Your task to perform on an android device: Play the last video I watched on Youtube Image 0: 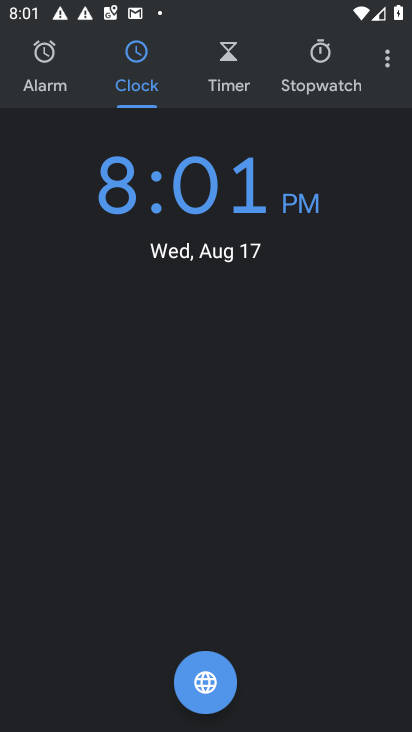
Step 0: press home button
Your task to perform on an android device: Play the last video I watched on Youtube Image 1: 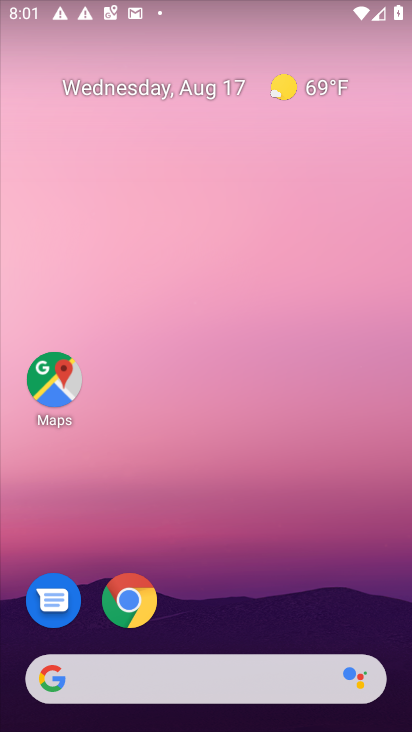
Step 1: drag from (261, 582) to (308, 145)
Your task to perform on an android device: Play the last video I watched on Youtube Image 2: 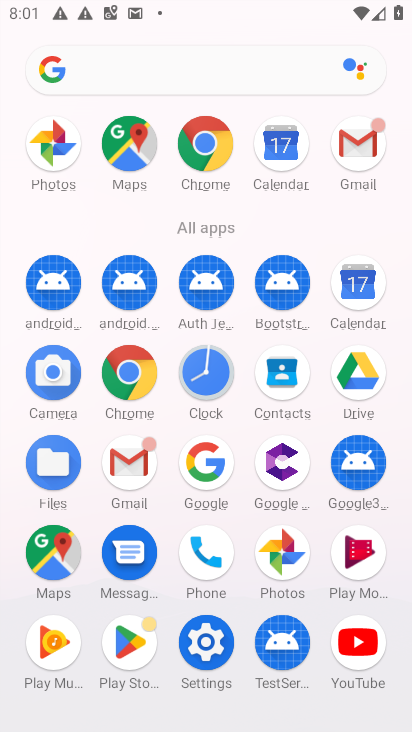
Step 2: click (368, 645)
Your task to perform on an android device: Play the last video I watched on Youtube Image 3: 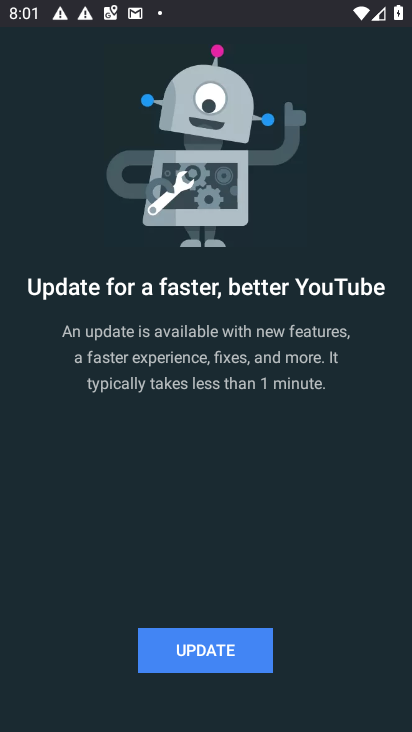
Step 3: click (220, 648)
Your task to perform on an android device: Play the last video I watched on Youtube Image 4: 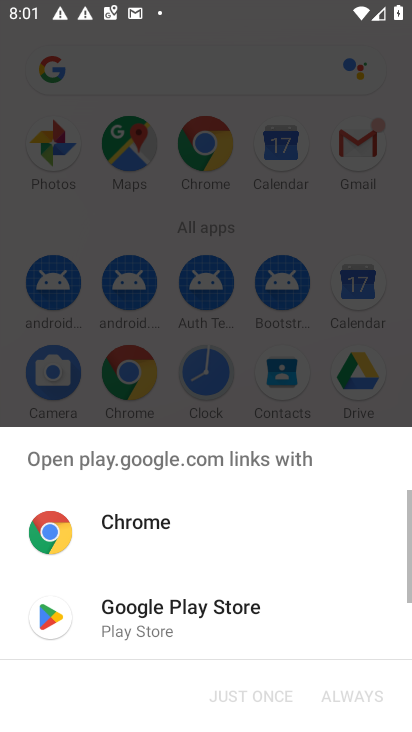
Step 4: click (210, 624)
Your task to perform on an android device: Play the last video I watched on Youtube Image 5: 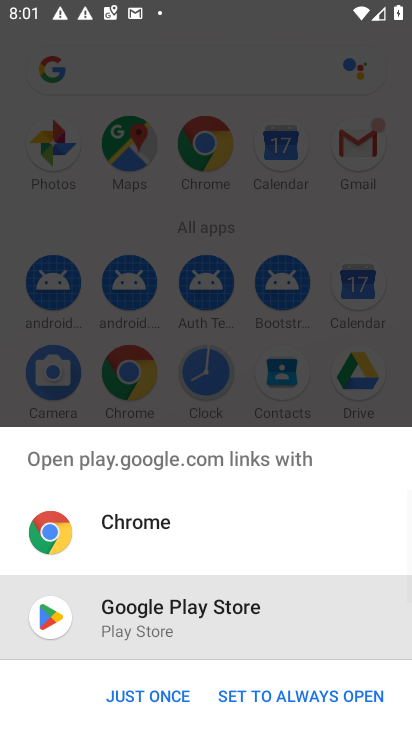
Step 5: click (169, 688)
Your task to perform on an android device: Play the last video I watched on Youtube Image 6: 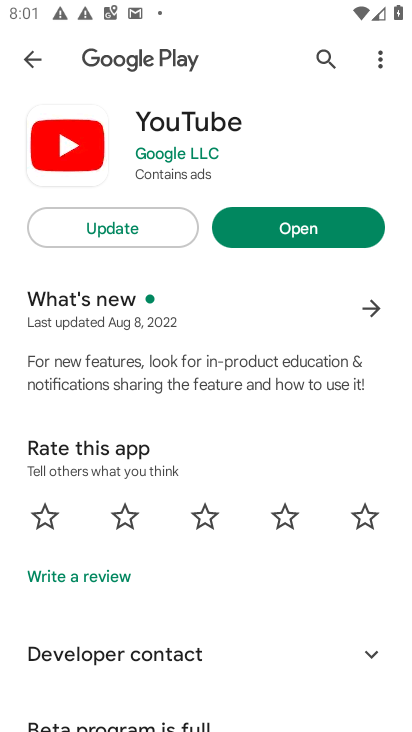
Step 6: click (136, 231)
Your task to perform on an android device: Play the last video I watched on Youtube Image 7: 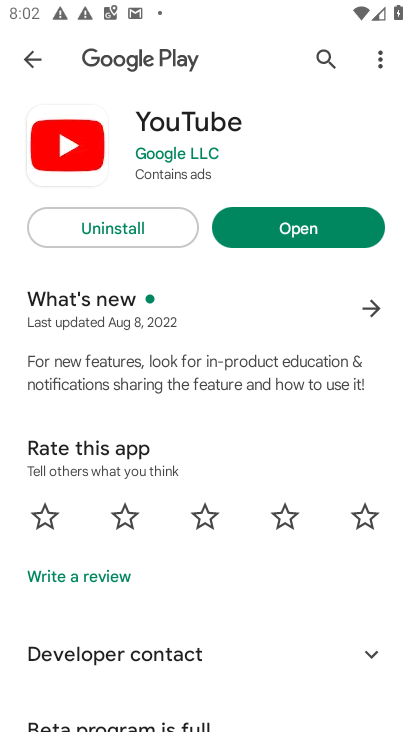
Step 7: click (289, 231)
Your task to perform on an android device: Play the last video I watched on Youtube Image 8: 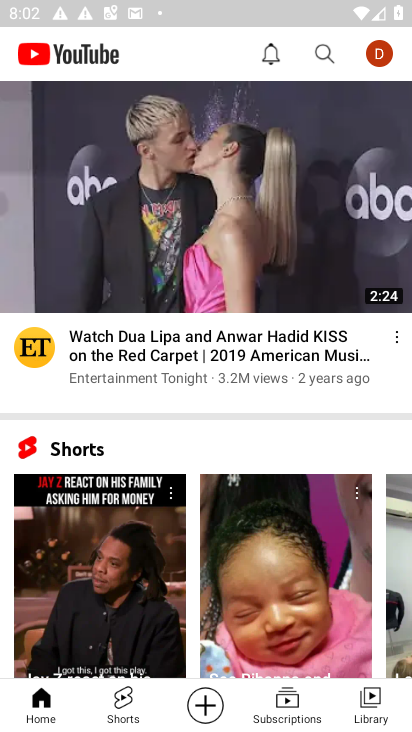
Step 8: click (373, 708)
Your task to perform on an android device: Play the last video I watched on Youtube Image 9: 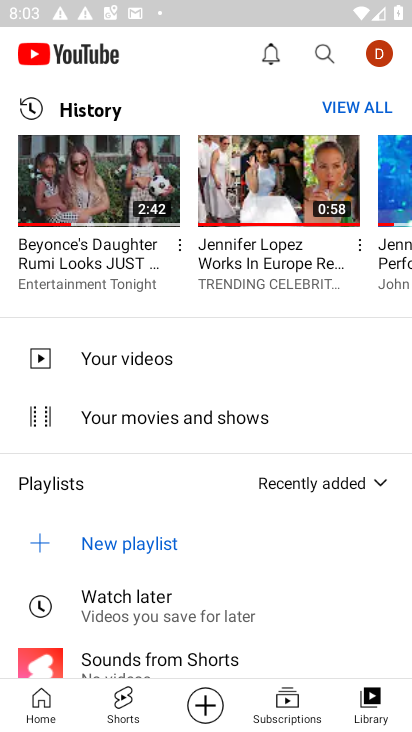
Step 9: click (356, 104)
Your task to perform on an android device: Play the last video I watched on Youtube Image 10: 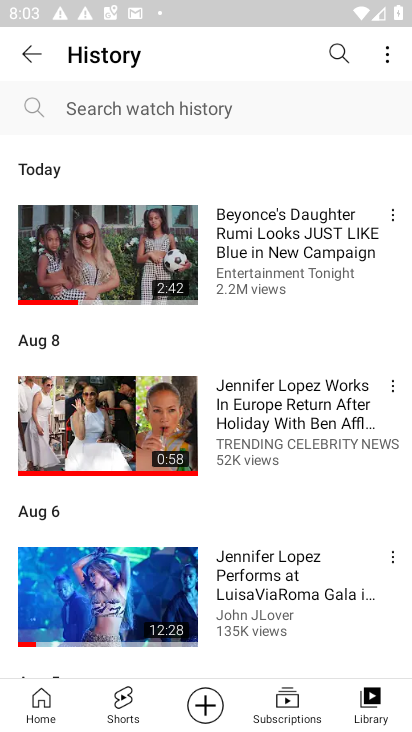
Step 10: click (125, 245)
Your task to perform on an android device: Play the last video I watched on Youtube Image 11: 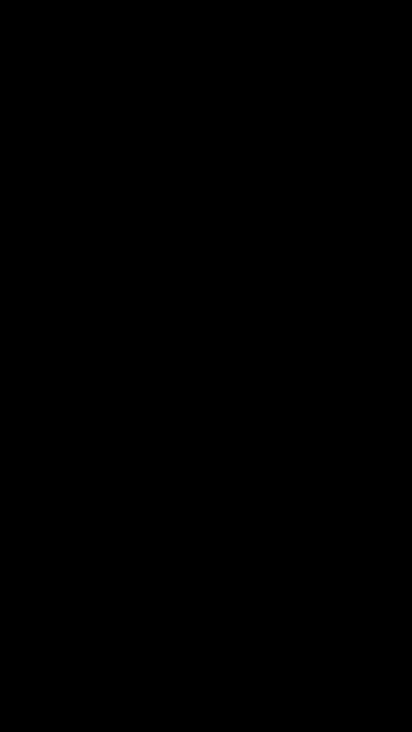
Step 11: click (184, 317)
Your task to perform on an android device: Play the last video I watched on Youtube Image 12: 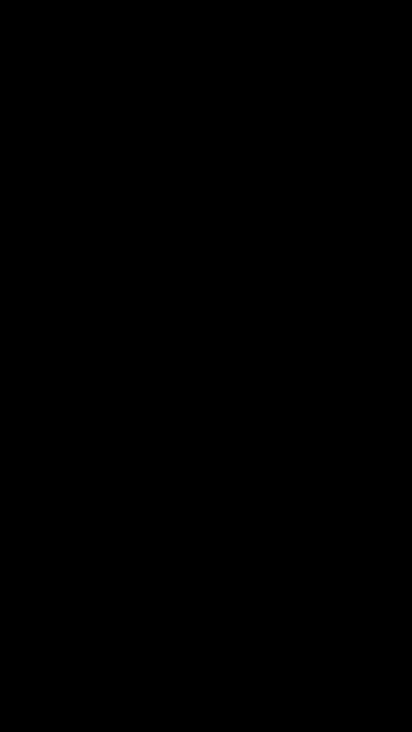
Step 12: task complete